Your task to perform on an android device: Clear the shopping cart on ebay.com. Search for panasonic triple a on ebay.com, select the first entry, and add it to the cart. Image 0: 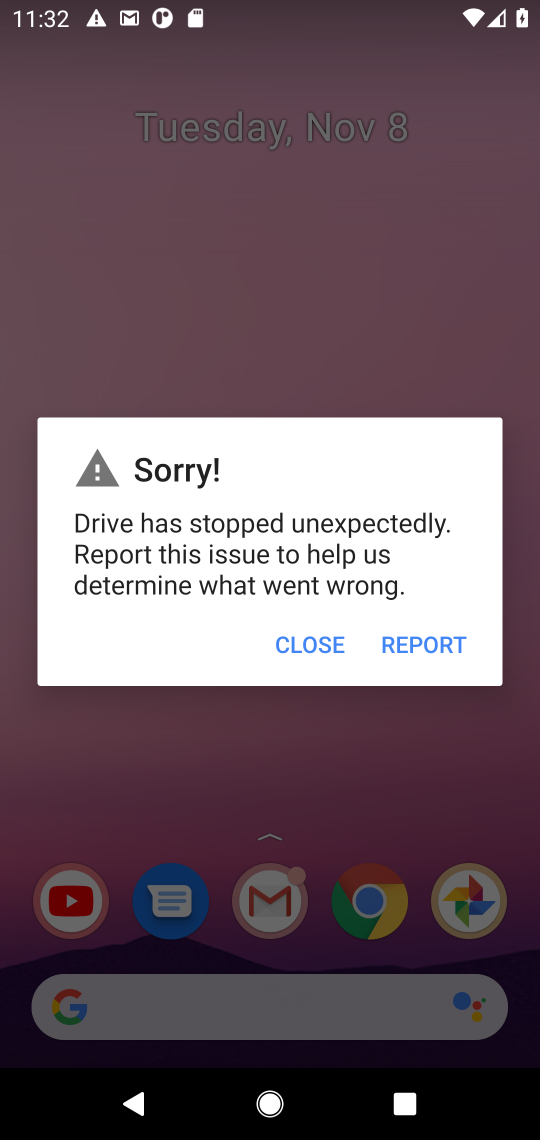
Step 0: press home button
Your task to perform on an android device: Clear the shopping cart on ebay.com. Search for panasonic triple a on ebay.com, select the first entry, and add it to the cart. Image 1: 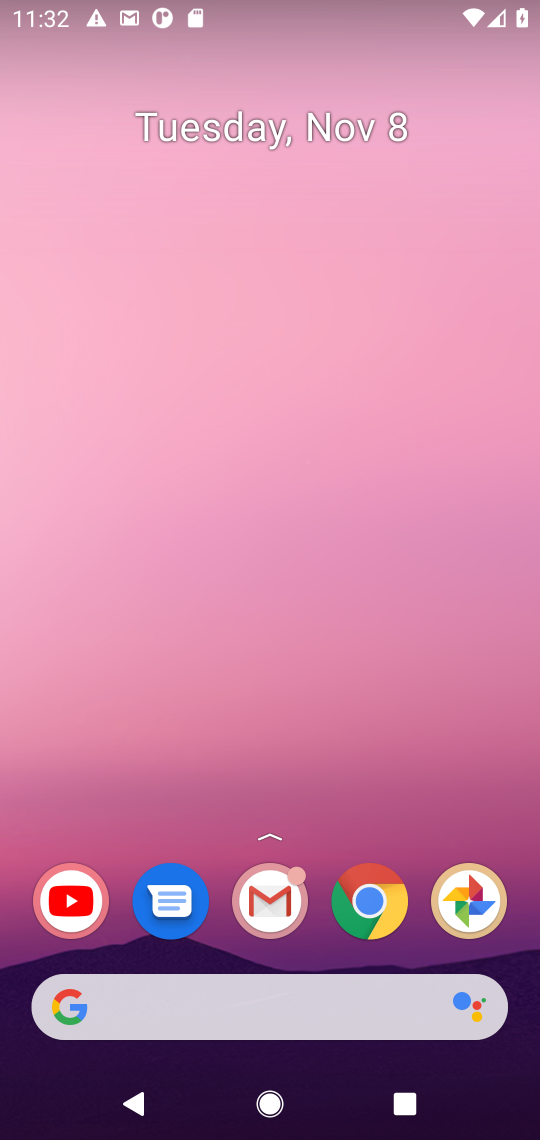
Step 1: click (380, 894)
Your task to perform on an android device: Clear the shopping cart on ebay.com. Search for panasonic triple a on ebay.com, select the first entry, and add it to the cart. Image 2: 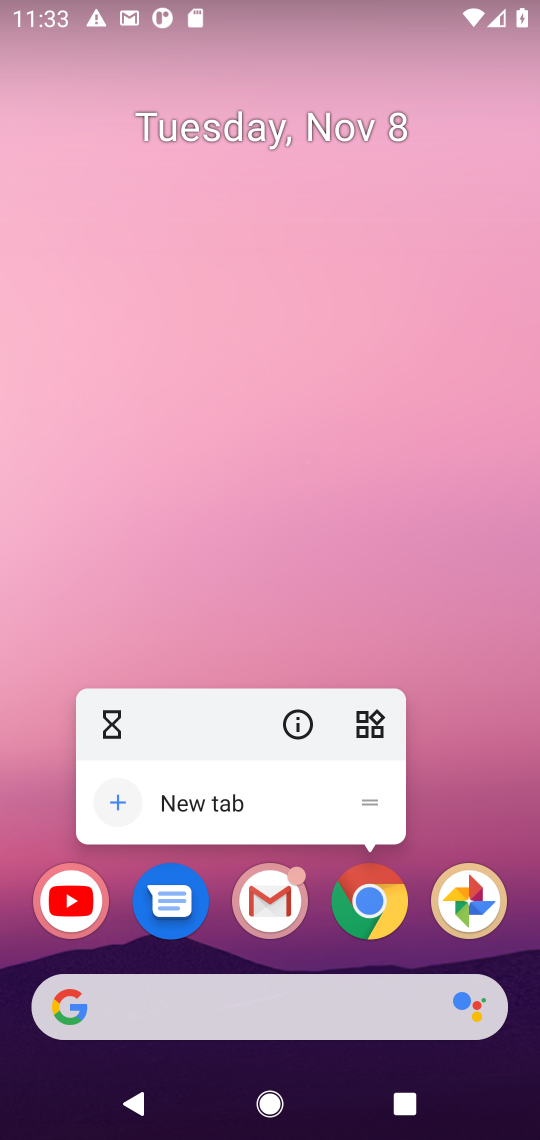
Step 2: click (393, 914)
Your task to perform on an android device: Clear the shopping cart on ebay.com. Search for panasonic triple a on ebay.com, select the first entry, and add it to the cart. Image 3: 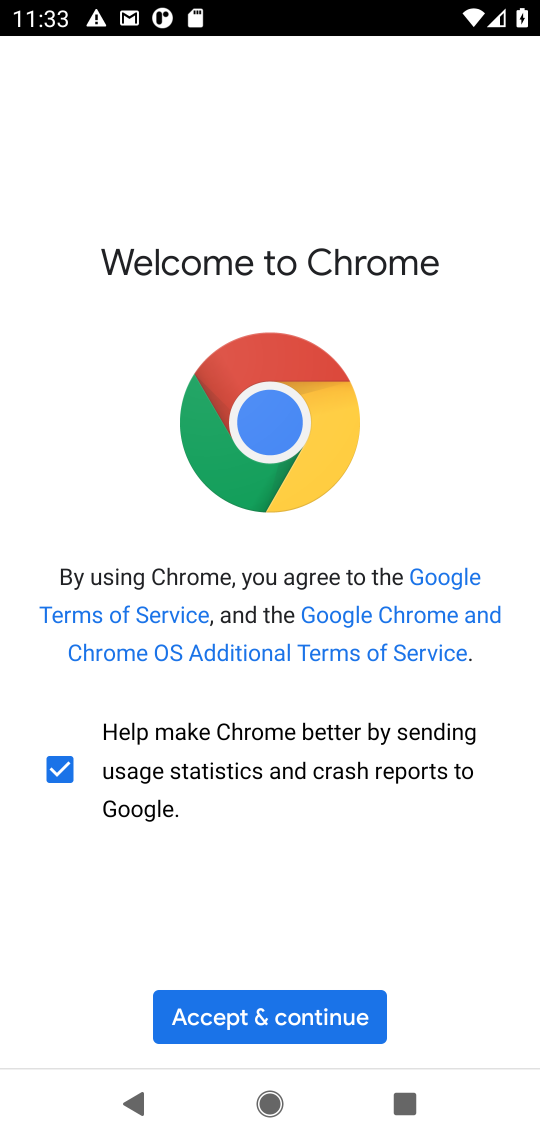
Step 3: click (327, 1010)
Your task to perform on an android device: Clear the shopping cart on ebay.com. Search for panasonic triple a on ebay.com, select the first entry, and add it to the cart. Image 4: 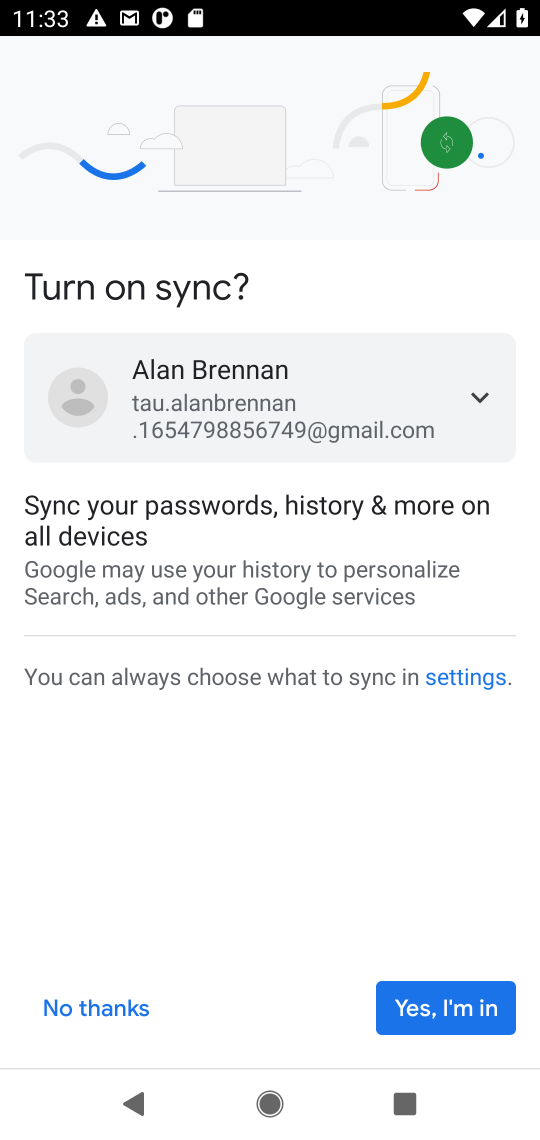
Step 4: click (438, 1001)
Your task to perform on an android device: Clear the shopping cart on ebay.com. Search for panasonic triple a on ebay.com, select the first entry, and add it to the cart. Image 5: 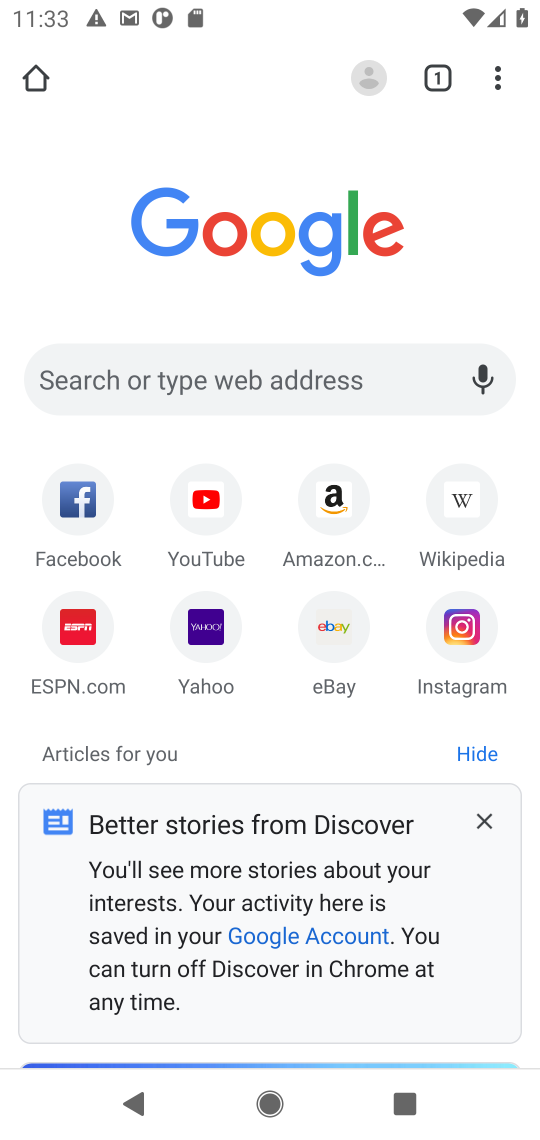
Step 5: click (351, 398)
Your task to perform on an android device: Clear the shopping cart on ebay.com. Search for panasonic triple a on ebay.com, select the first entry, and add it to the cart. Image 6: 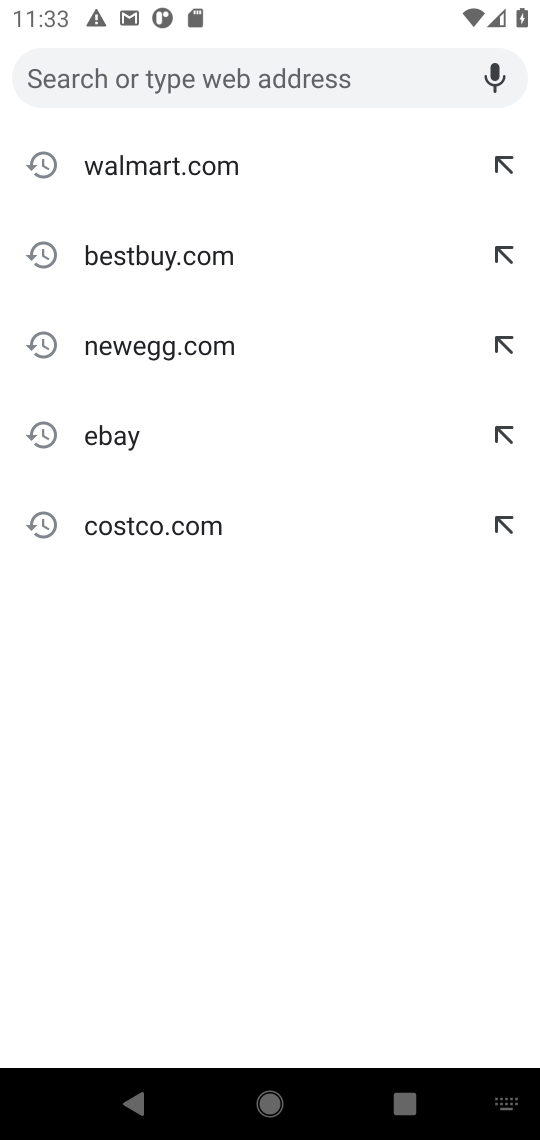
Step 6: click (105, 436)
Your task to perform on an android device: Clear the shopping cart on ebay.com. Search for panasonic triple a on ebay.com, select the first entry, and add it to the cart. Image 7: 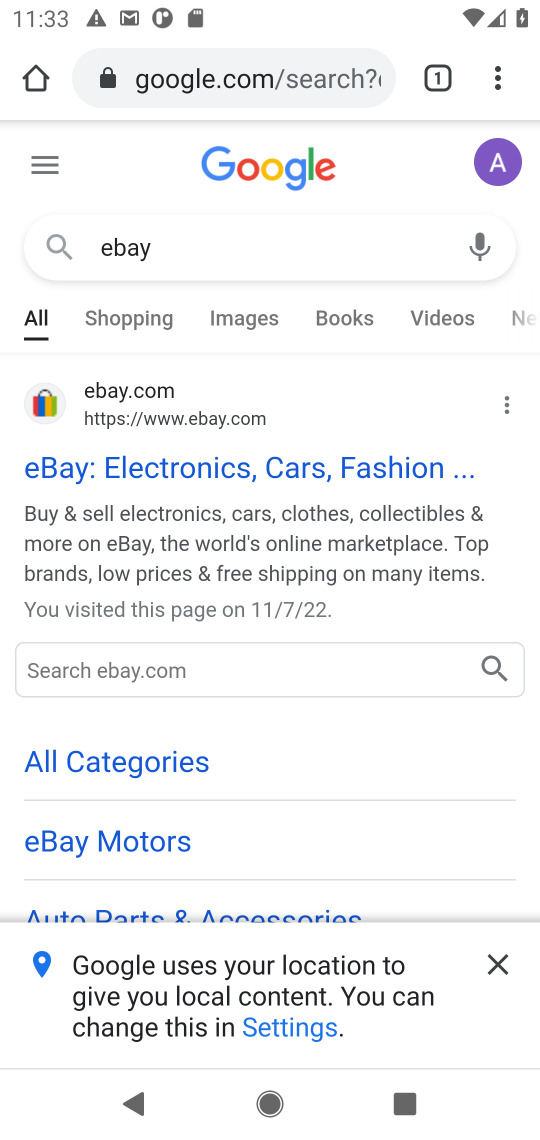
Step 7: click (499, 964)
Your task to perform on an android device: Clear the shopping cart on ebay.com. Search for panasonic triple a on ebay.com, select the first entry, and add it to the cart. Image 8: 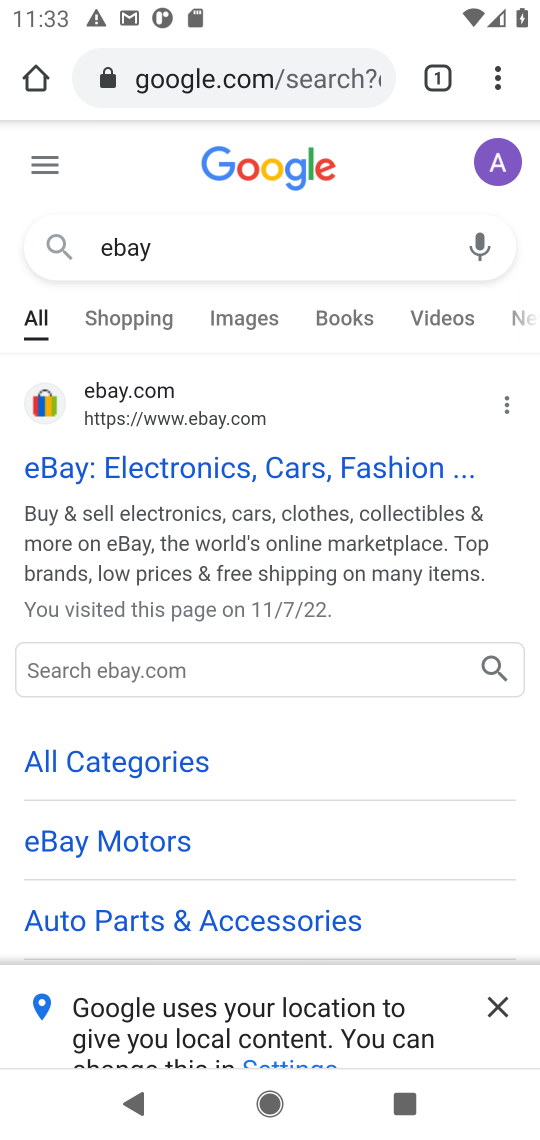
Step 8: click (160, 424)
Your task to perform on an android device: Clear the shopping cart on ebay.com. Search for panasonic triple a on ebay.com, select the first entry, and add it to the cart. Image 9: 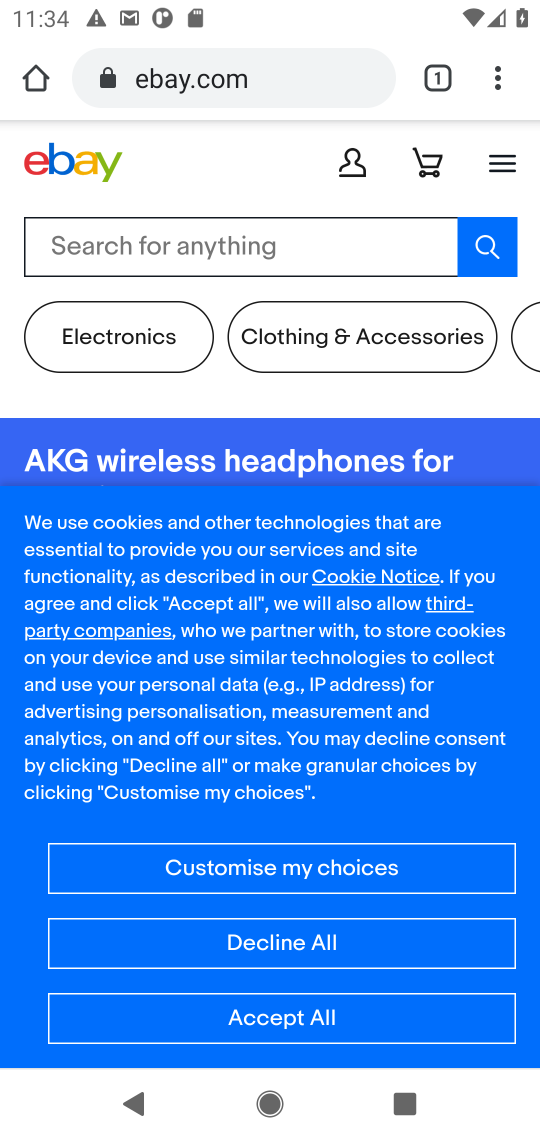
Step 9: click (168, 241)
Your task to perform on an android device: Clear the shopping cart on ebay.com. Search for panasonic triple a on ebay.com, select the first entry, and add it to the cart. Image 10: 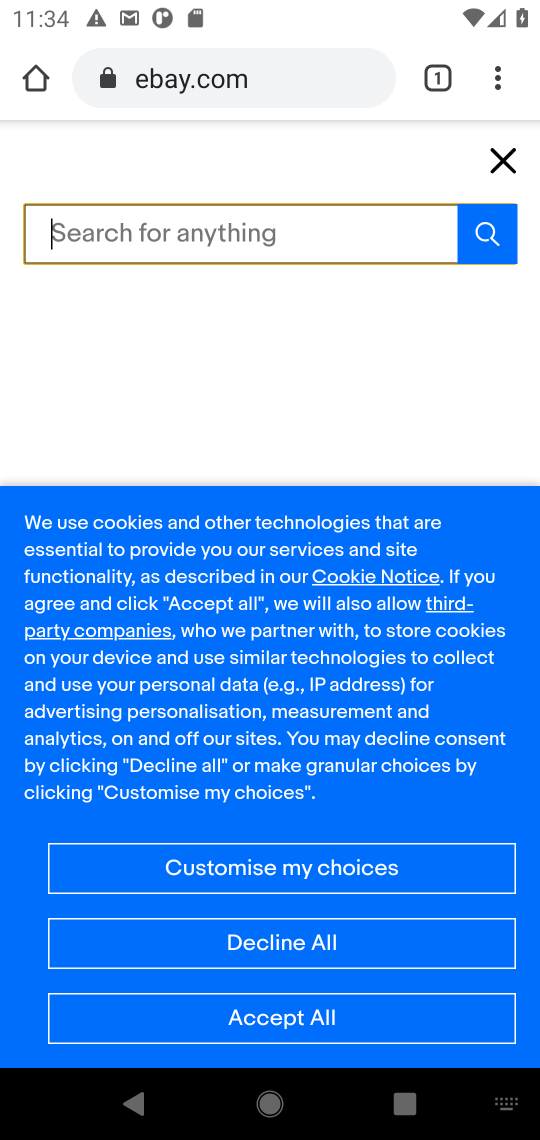
Step 10: type " panasonic triple a"
Your task to perform on an android device: Clear the shopping cart on ebay.com. Search for panasonic triple a on ebay.com, select the first entry, and add it to the cart. Image 11: 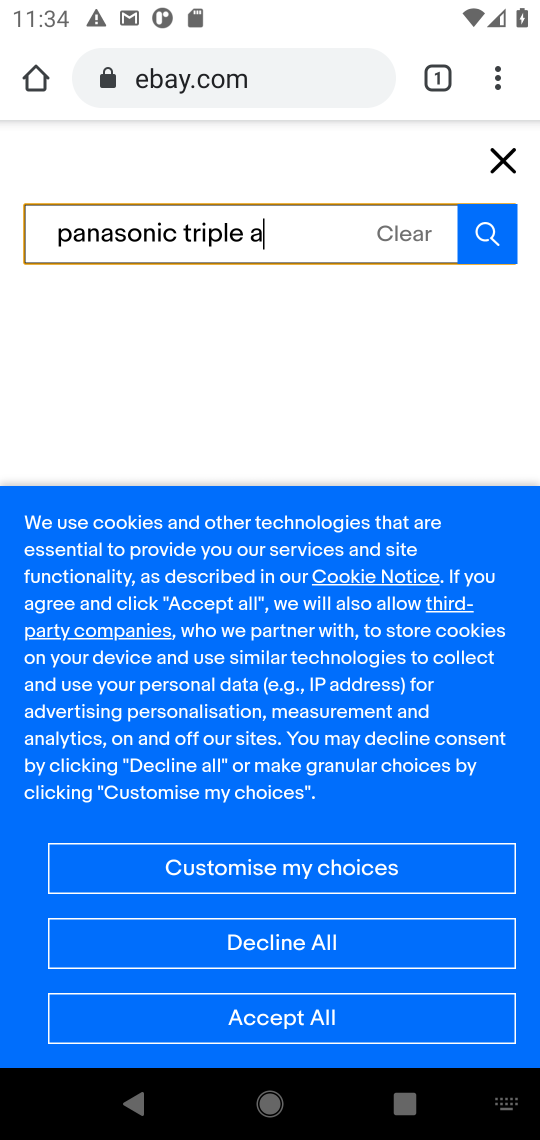
Step 11: click (268, 1012)
Your task to perform on an android device: Clear the shopping cart on ebay.com. Search for panasonic triple a on ebay.com, select the first entry, and add it to the cart. Image 12: 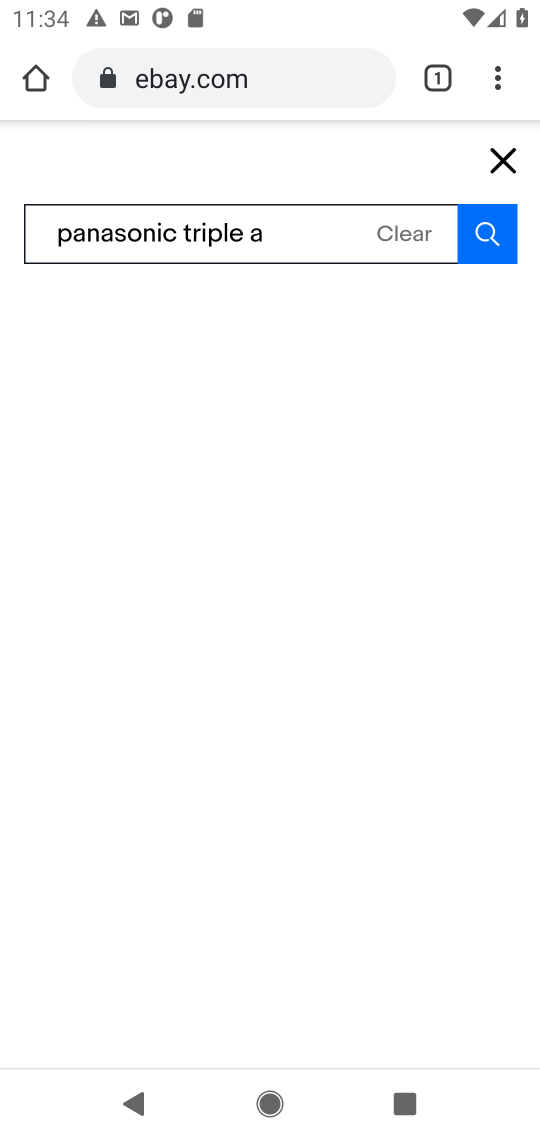
Step 12: click (347, 324)
Your task to perform on an android device: Clear the shopping cart on ebay.com. Search for panasonic triple a on ebay.com, select the first entry, and add it to the cart. Image 13: 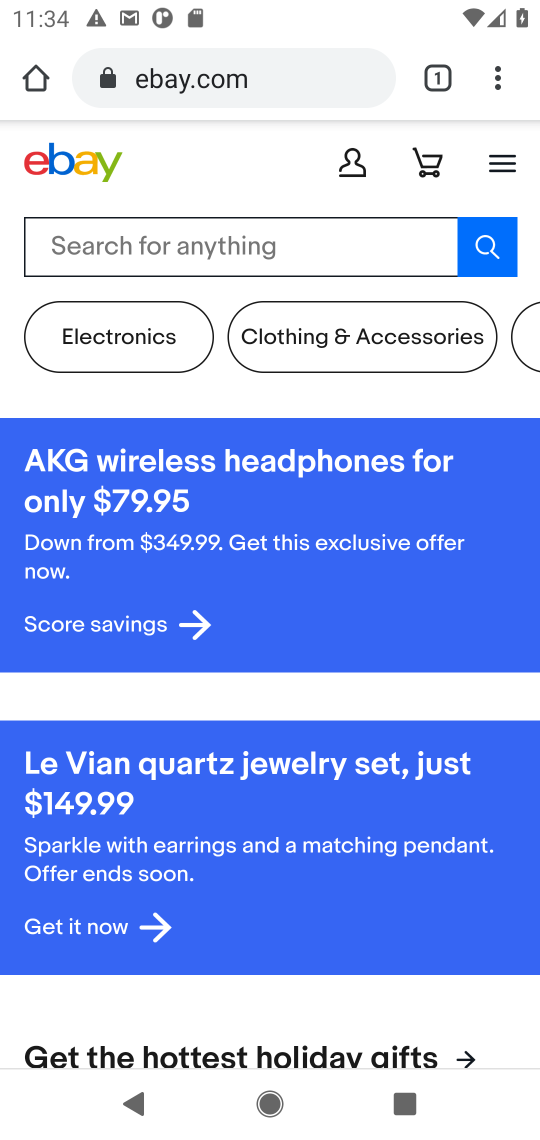
Step 13: drag from (360, 851) to (465, 447)
Your task to perform on an android device: Clear the shopping cart on ebay.com. Search for panasonic triple a on ebay.com, select the first entry, and add it to the cart. Image 14: 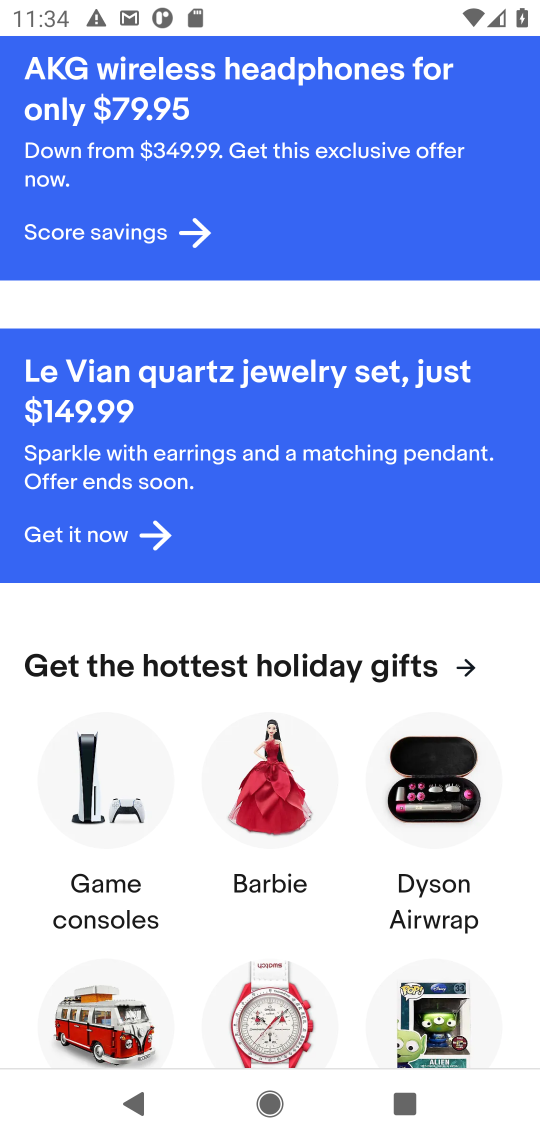
Step 14: drag from (360, 791) to (484, 246)
Your task to perform on an android device: Clear the shopping cart on ebay.com. Search for panasonic triple a on ebay.com, select the first entry, and add it to the cart. Image 15: 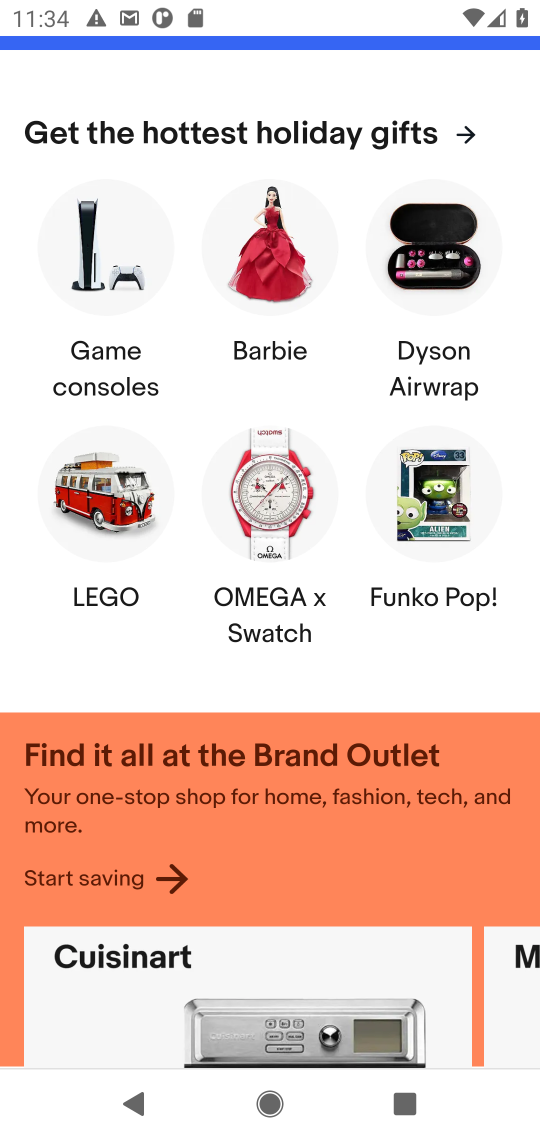
Step 15: drag from (326, 502) to (265, 918)
Your task to perform on an android device: Clear the shopping cart on ebay.com. Search for panasonic triple a on ebay.com, select the first entry, and add it to the cart. Image 16: 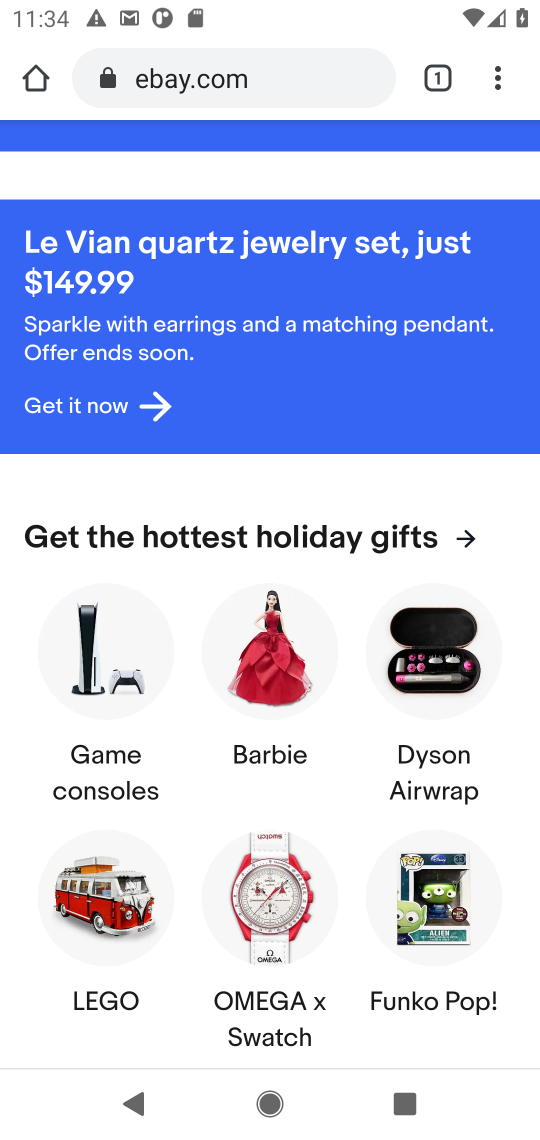
Step 16: drag from (272, 387) to (244, 861)
Your task to perform on an android device: Clear the shopping cart on ebay.com. Search for panasonic triple a on ebay.com, select the first entry, and add it to the cart. Image 17: 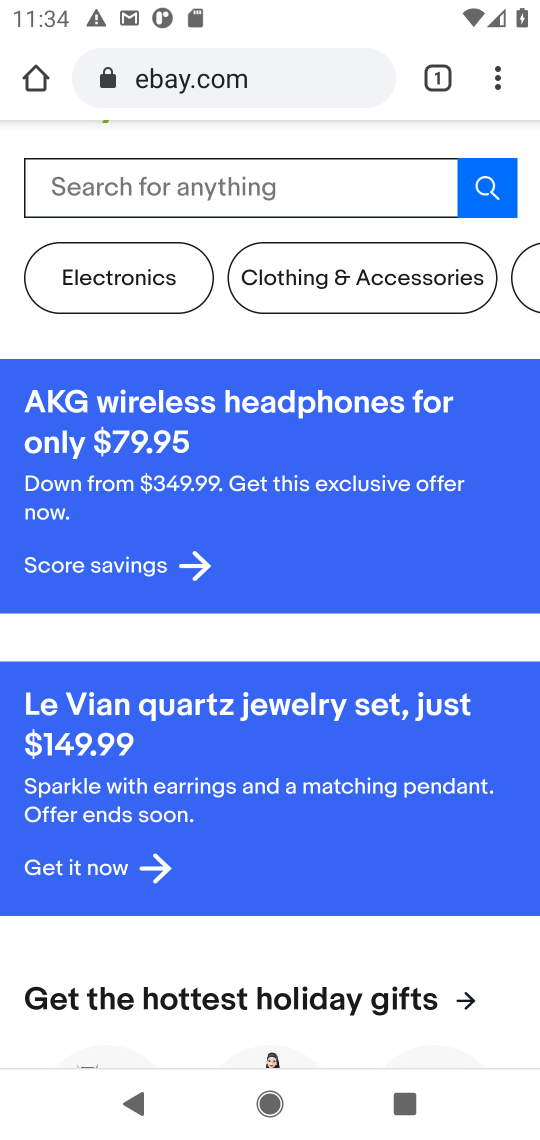
Step 17: drag from (274, 195) to (235, 809)
Your task to perform on an android device: Clear the shopping cart on ebay.com. Search for panasonic triple a on ebay.com, select the first entry, and add it to the cart. Image 18: 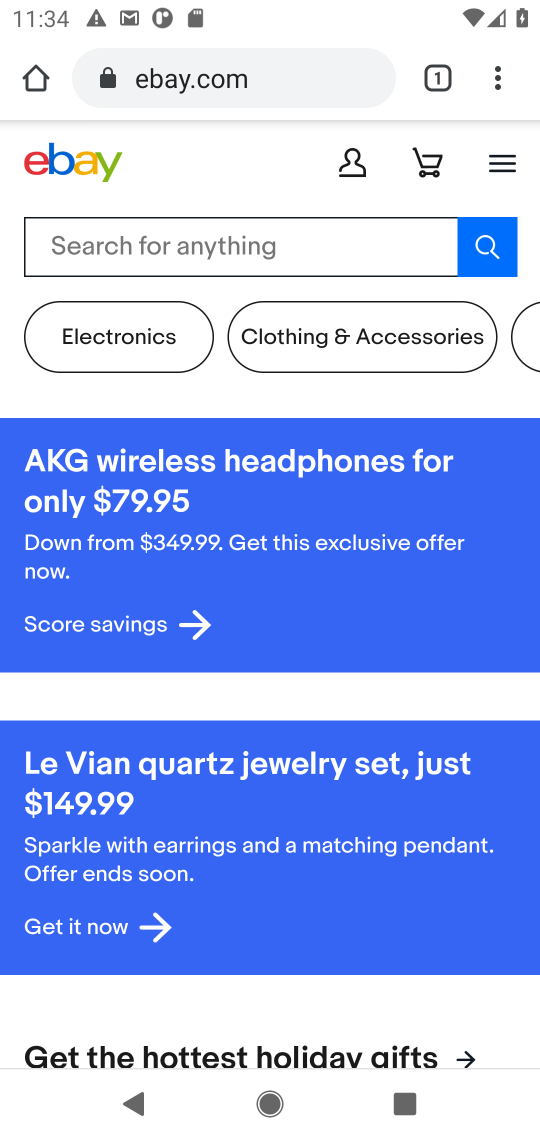
Step 18: click (363, 249)
Your task to perform on an android device: Clear the shopping cart on ebay.com. Search for panasonic triple a on ebay.com, select the first entry, and add it to the cart. Image 19: 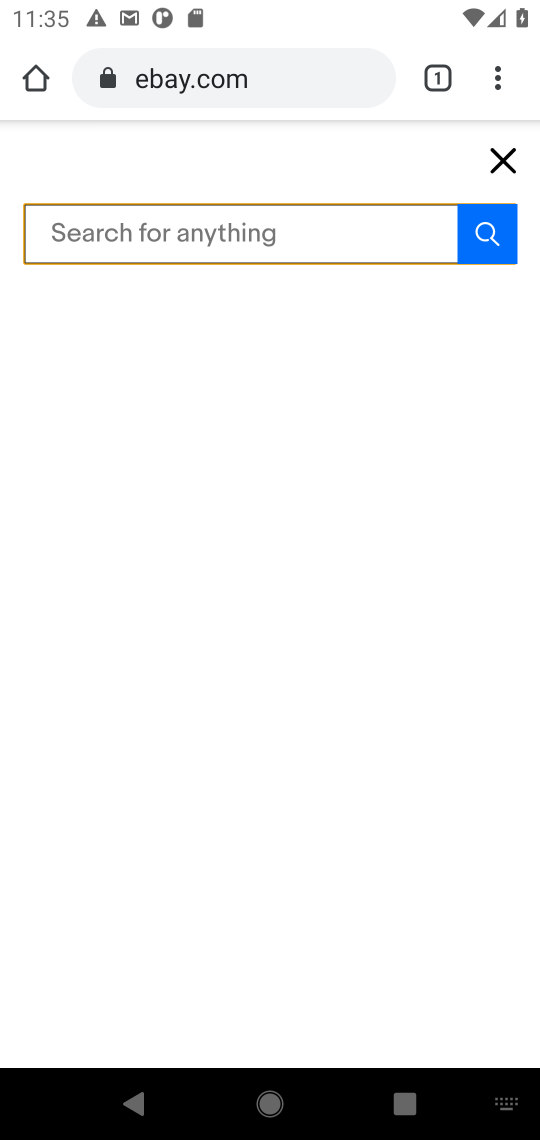
Step 19: type " panasonic triple a"
Your task to perform on an android device: Clear the shopping cart on ebay.com. Search for panasonic triple a on ebay.com, select the first entry, and add it to the cart. Image 20: 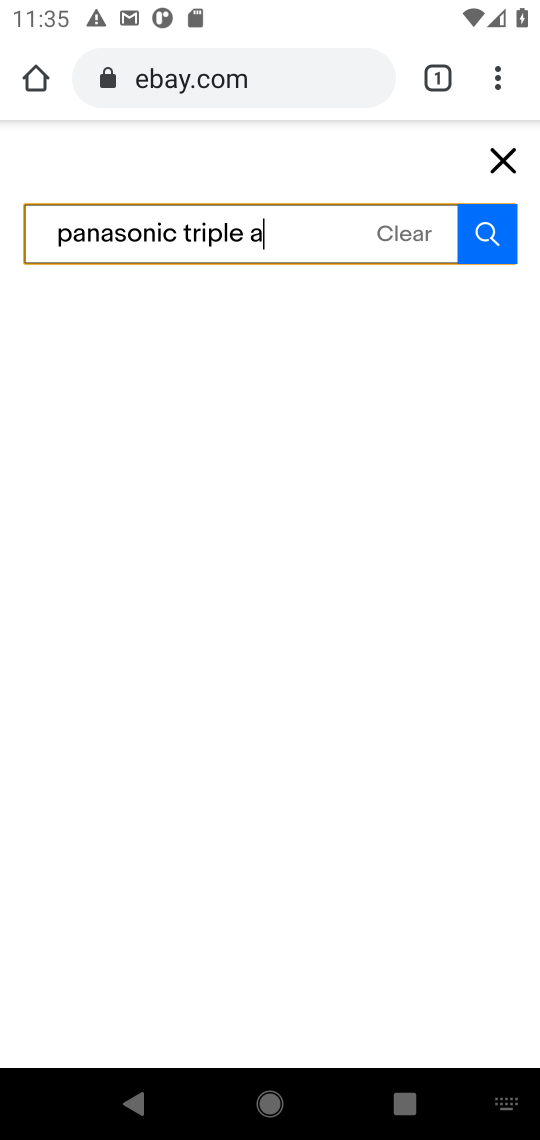
Step 20: click (495, 415)
Your task to perform on an android device: Clear the shopping cart on ebay.com. Search for panasonic triple a on ebay.com, select the first entry, and add it to the cart. Image 21: 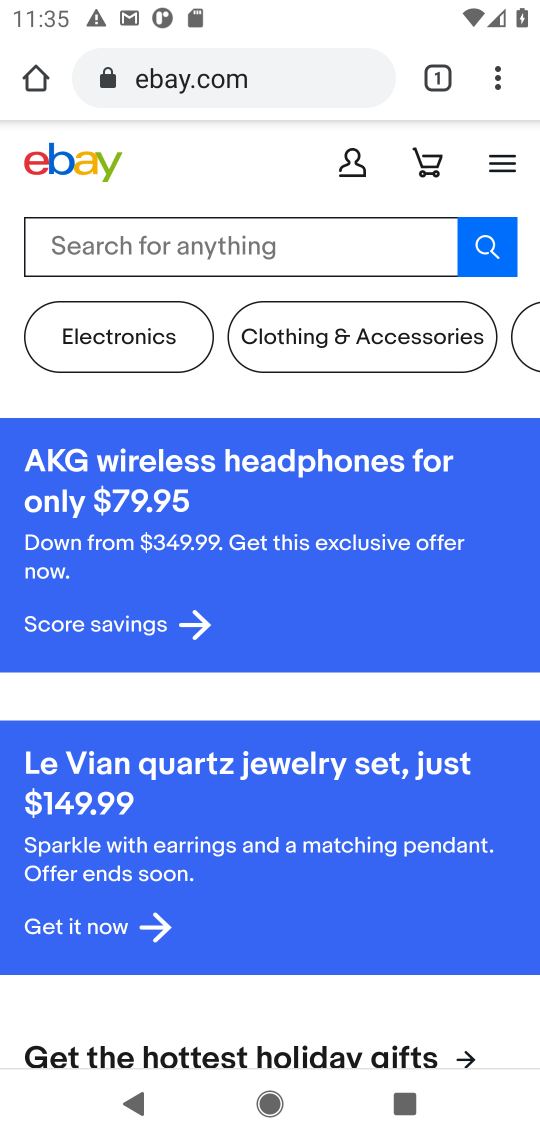
Step 21: task complete